Your task to perform on an android device: turn off location history Image 0: 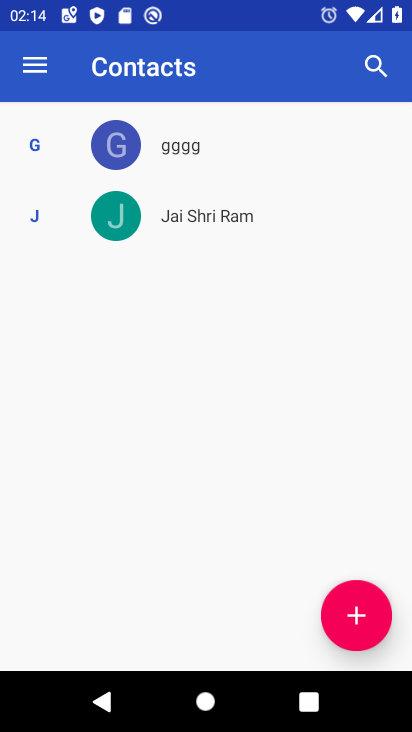
Step 0: press home button
Your task to perform on an android device: turn off location history Image 1: 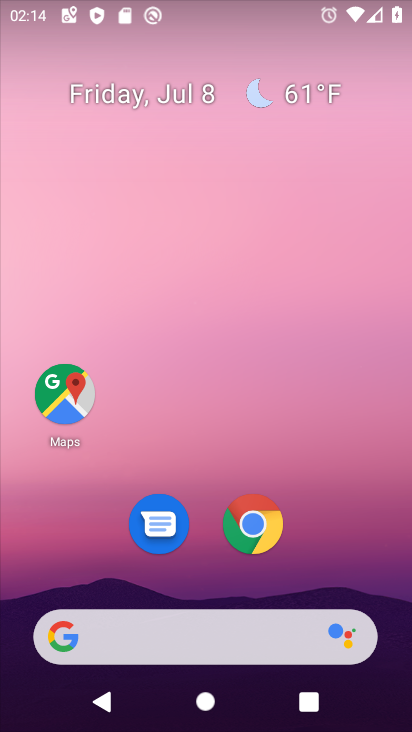
Step 1: drag from (243, 423) to (227, 52)
Your task to perform on an android device: turn off location history Image 2: 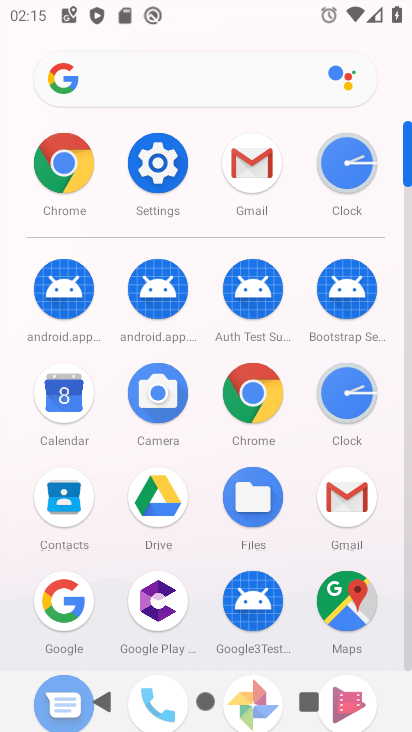
Step 2: click (164, 170)
Your task to perform on an android device: turn off location history Image 3: 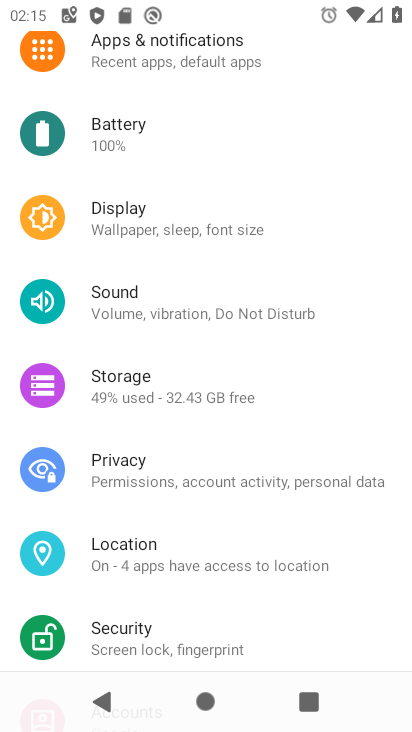
Step 3: click (197, 555)
Your task to perform on an android device: turn off location history Image 4: 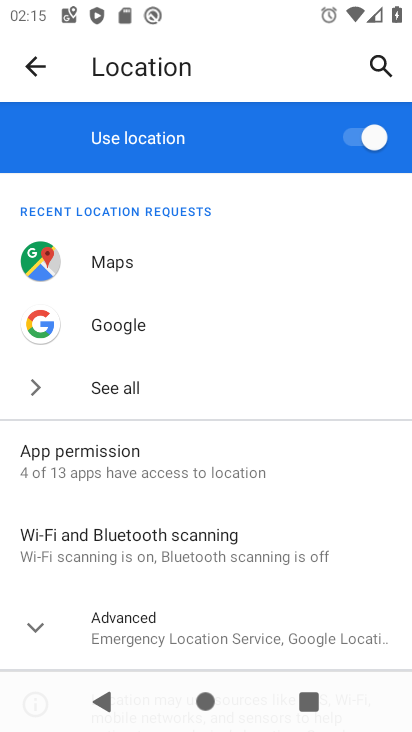
Step 4: click (33, 620)
Your task to perform on an android device: turn off location history Image 5: 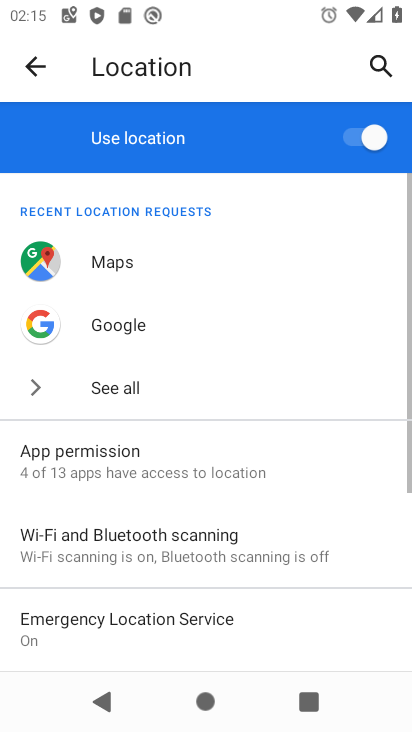
Step 5: drag from (212, 524) to (214, 217)
Your task to perform on an android device: turn off location history Image 6: 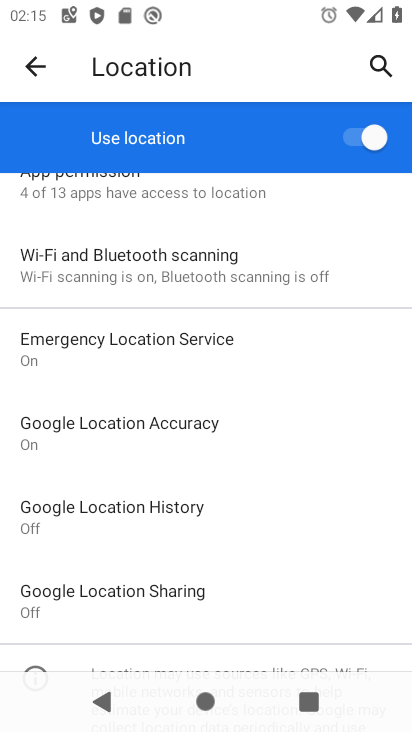
Step 6: click (121, 515)
Your task to perform on an android device: turn off location history Image 7: 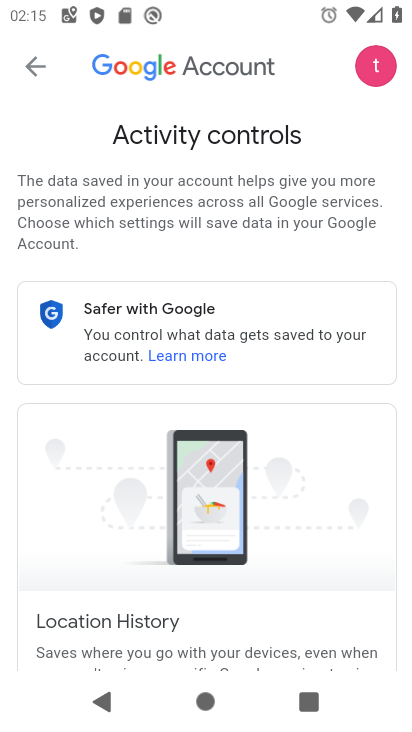
Step 7: drag from (337, 545) to (322, 302)
Your task to perform on an android device: turn off location history Image 8: 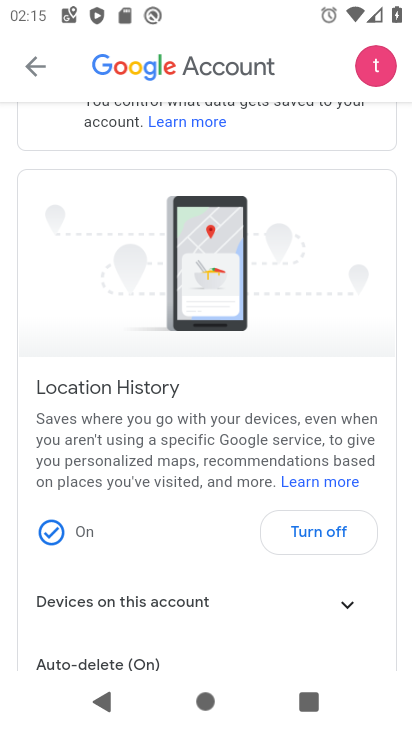
Step 8: click (352, 532)
Your task to perform on an android device: turn off location history Image 9: 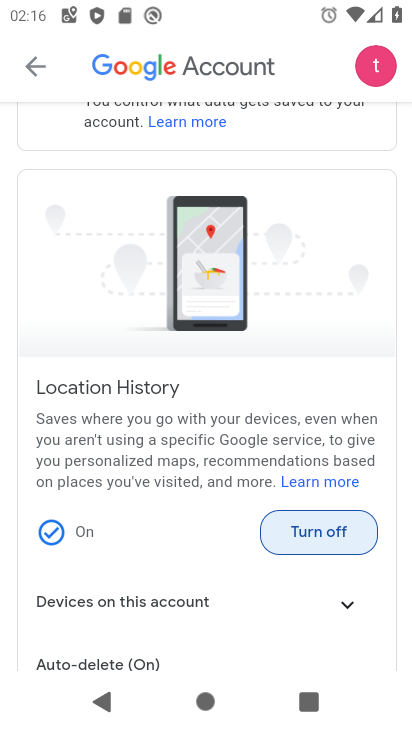
Step 9: click (352, 533)
Your task to perform on an android device: turn off location history Image 10: 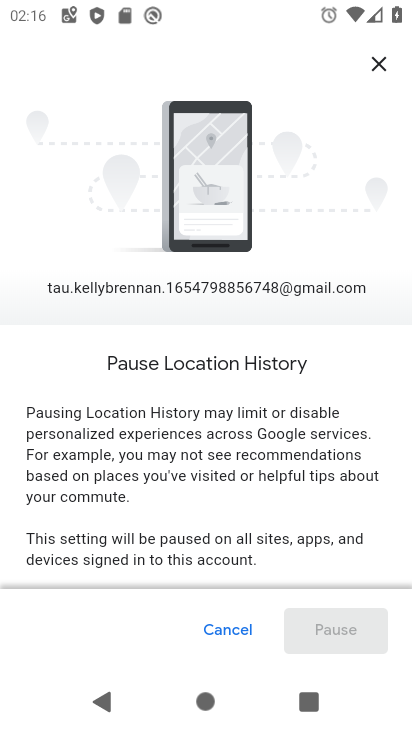
Step 10: drag from (296, 492) to (264, 1)
Your task to perform on an android device: turn off location history Image 11: 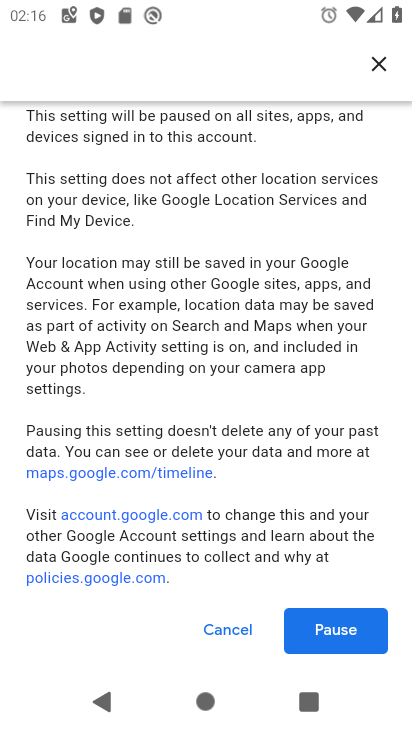
Step 11: click (365, 629)
Your task to perform on an android device: turn off location history Image 12: 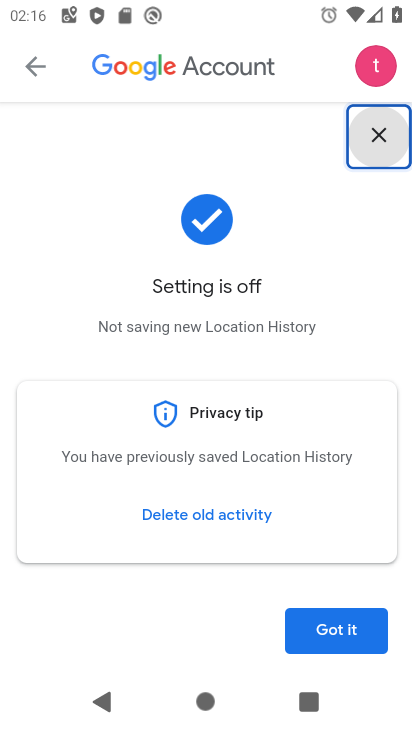
Step 12: click (365, 629)
Your task to perform on an android device: turn off location history Image 13: 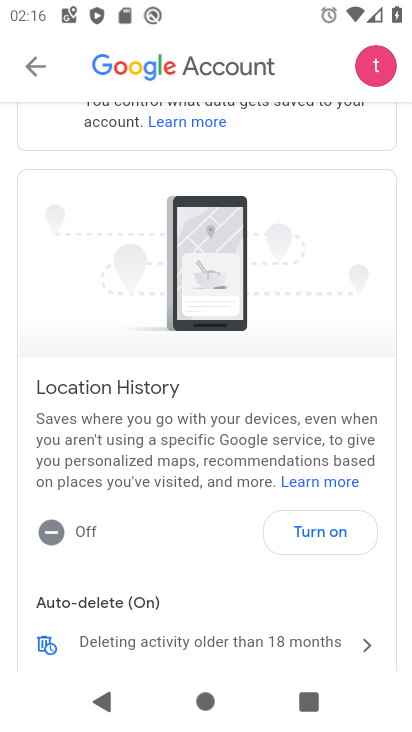
Step 13: task complete